Your task to perform on an android device: Open Android settings Image 0: 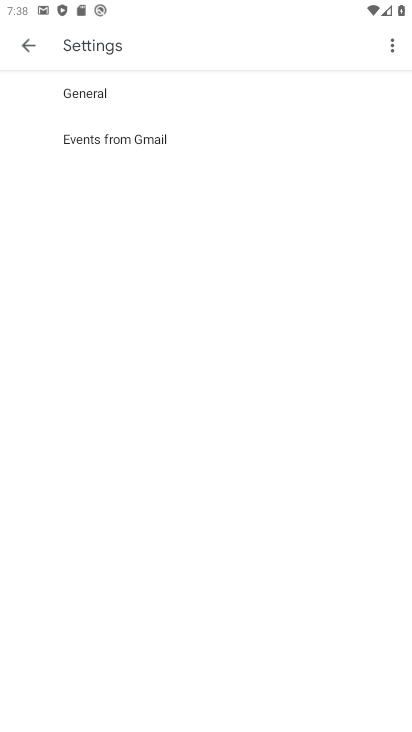
Step 0: task complete